Your task to perform on an android device: see sites visited before in the chrome app Image 0: 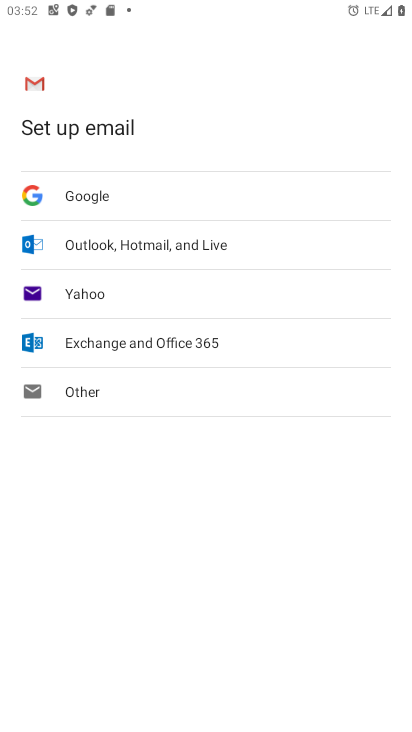
Step 0: press back button
Your task to perform on an android device: see sites visited before in the chrome app Image 1: 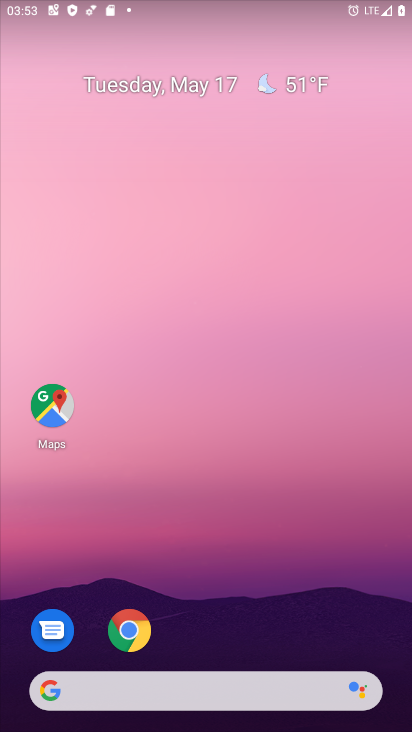
Step 1: click (118, 636)
Your task to perform on an android device: see sites visited before in the chrome app Image 2: 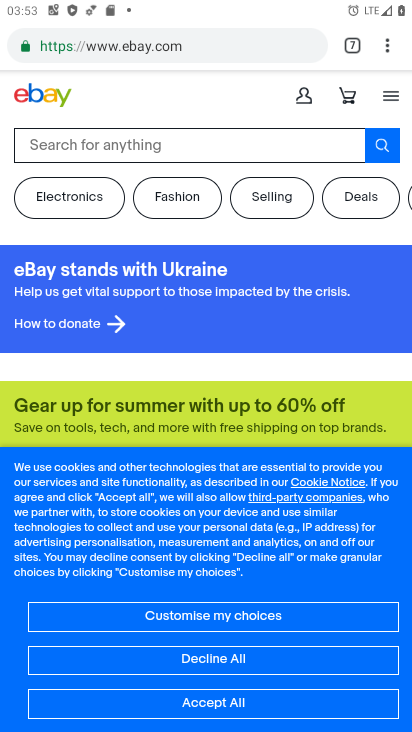
Step 2: task complete